Your task to perform on an android device: turn on bluetooth scan Image 0: 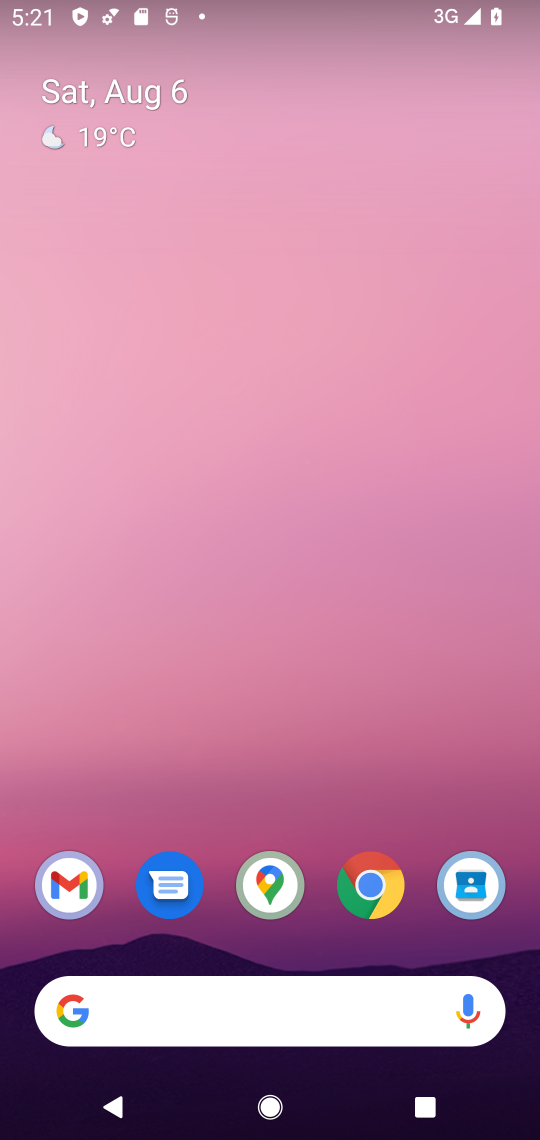
Step 0: drag from (433, 922) to (180, 122)
Your task to perform on an android device: turn on bluetooth scan Image 1: 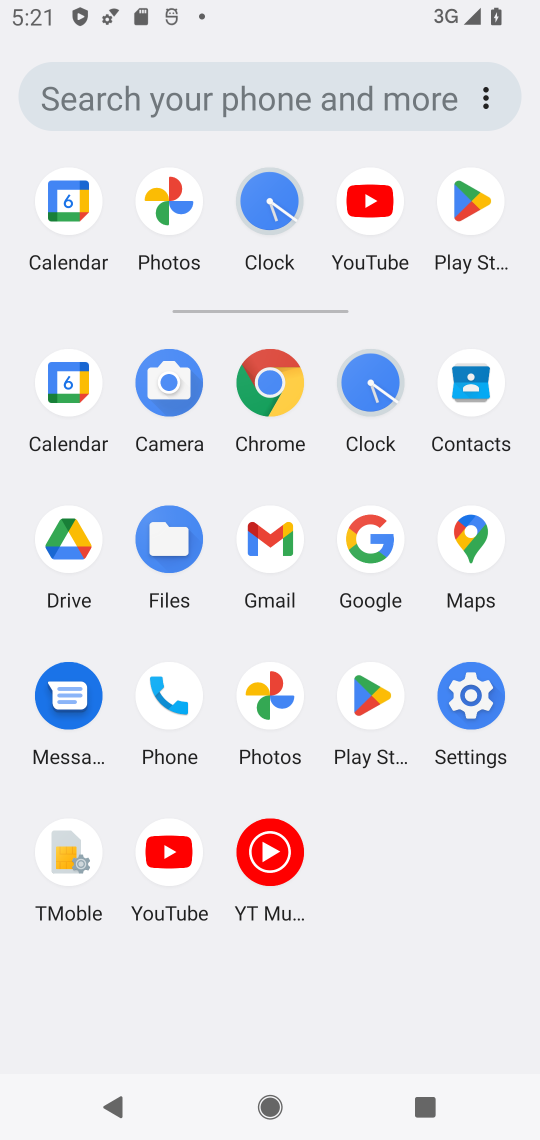
Step 1: click (487, 711)
Your task to perform on an android device: turn on bluetooth scan Image 2: 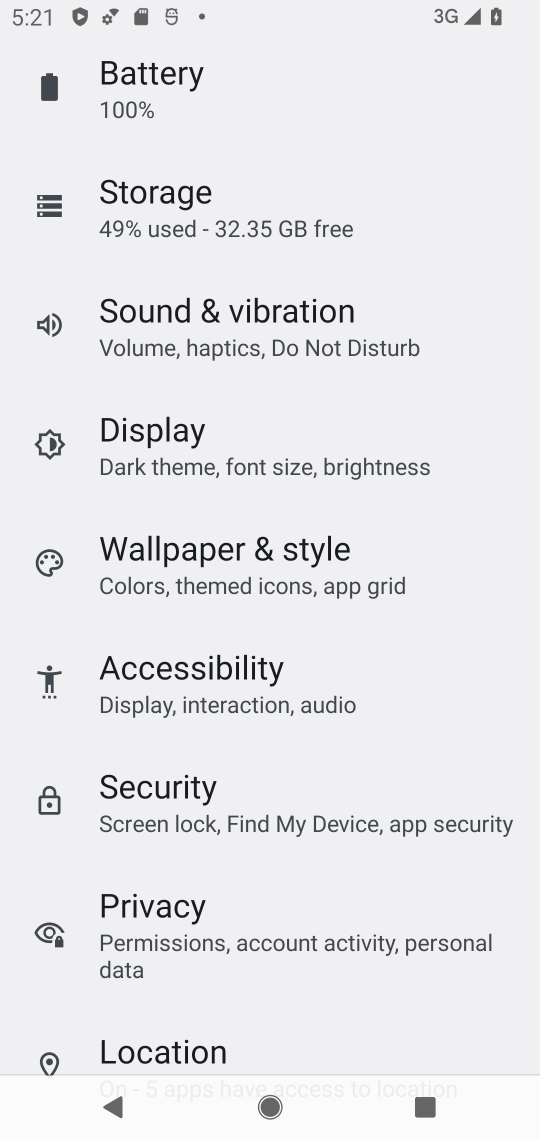
Step 2: click (193, 1033)
Your task to perform on an android device: turn on bluetooth scan Image 3: 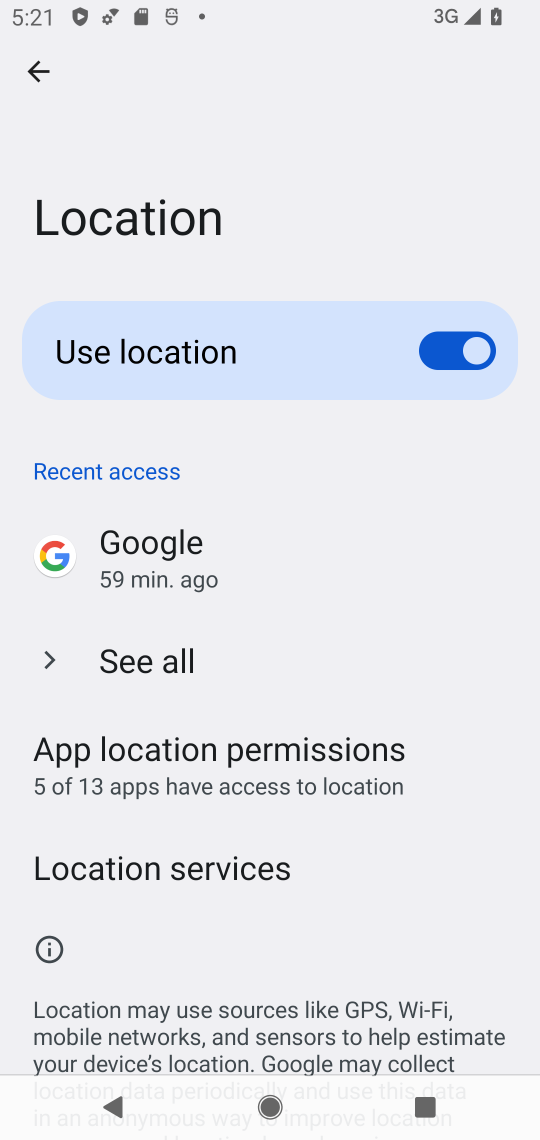
Step 3: click (192, 833)
Your task to perform on an android device: turn on bluetooth scan Image 4: 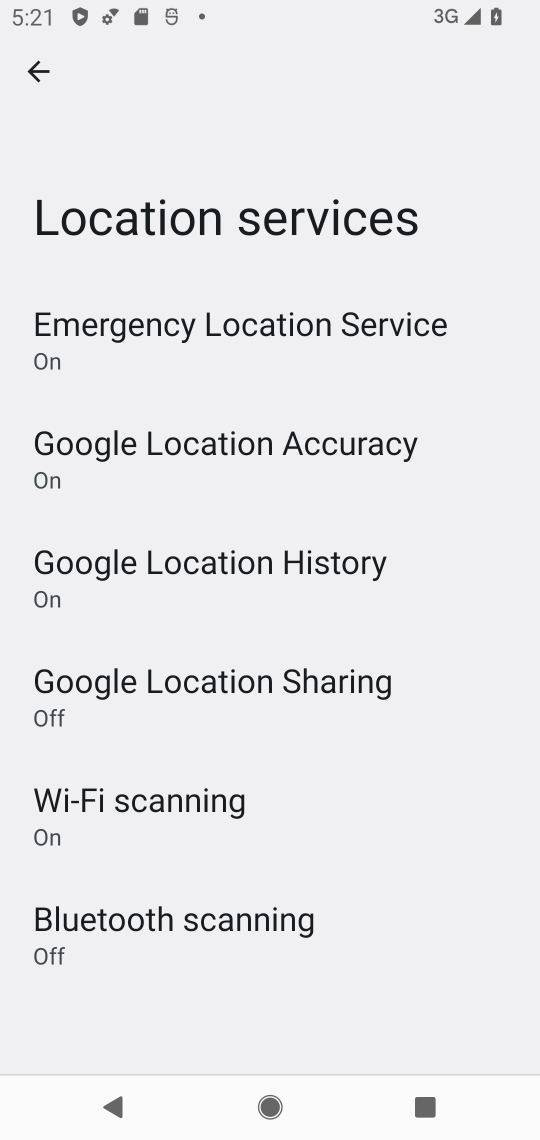
Step 4: task complete